Your task to perform on an android device: open chrome and create a bookmark for the current page Image 0: 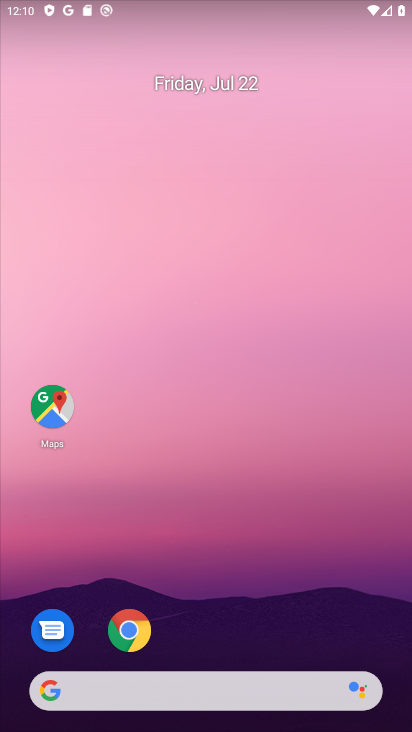
Step 0: press home button
Your task to perform on an android device: open chrome and create a bookmark for the current page Image 1: 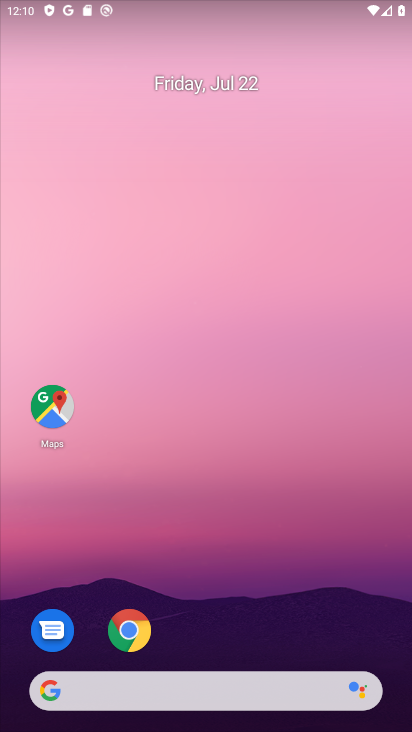
Step 1: drag from (184, 623) to (195, 171)
Your task to perform on an android device: open chrome and create a bookmark for the current page Image 2: 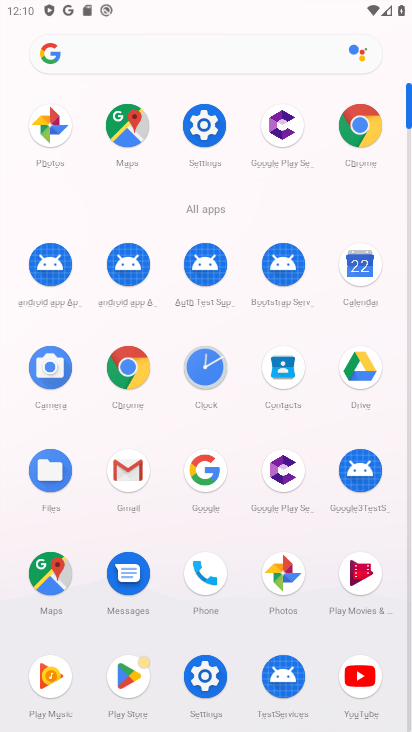
Step 2: click (358, 127)
Your task to perform on an android device: open chrome and create a bookmark for the current page Image 3: 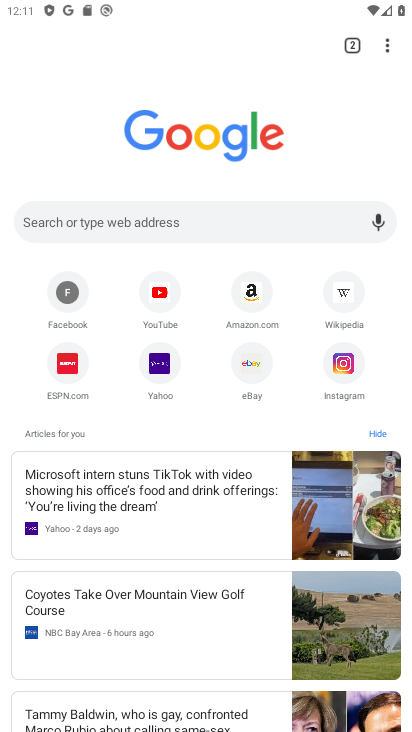
Step 3: click (383, 46)
Your task to perform on an android device: open chrome and create a bookmark for the current page Image 4: 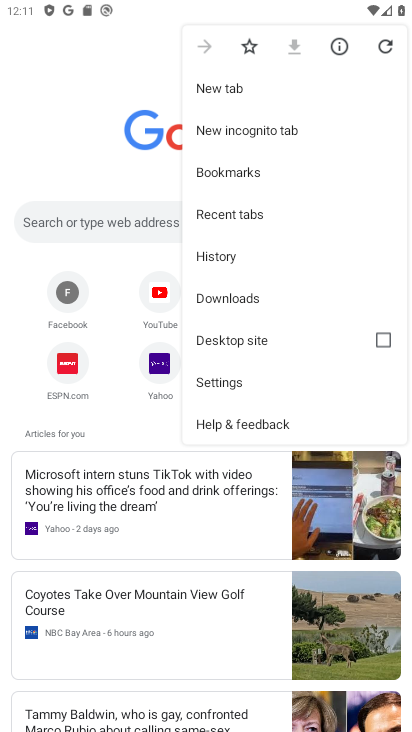
Step 4: click (252, 49)
Your task to perform on an android device: open chrome and create a bookmark for the current page Image 5: 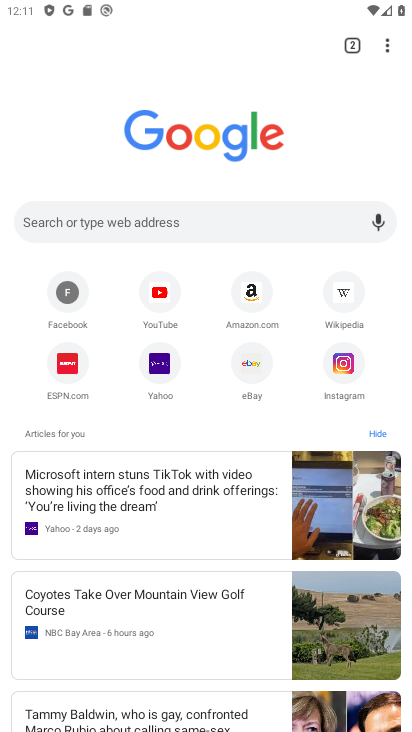
Step 5: task complete